Your task to perform on an android device: Open the map Image 0: 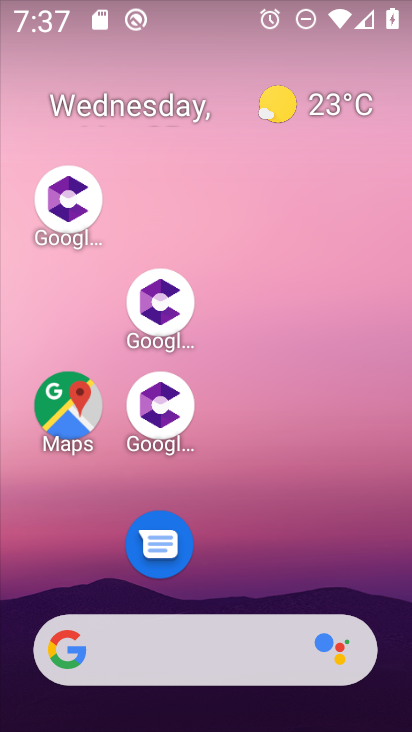
Step 0: click (57, 402)
Your task to perform on an android device: Open the map Image 1: 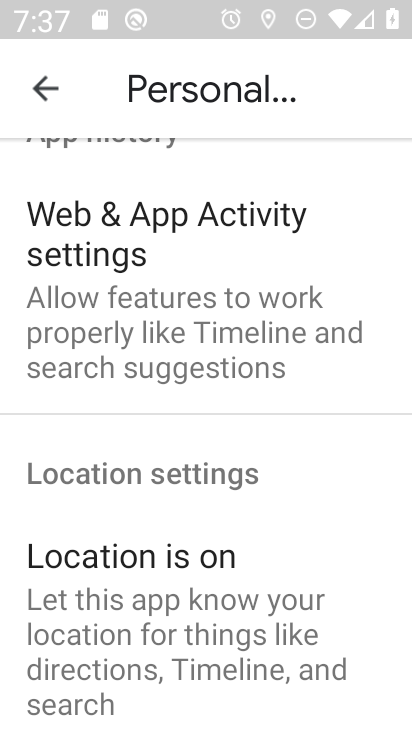
Step 1: task complete